Your task to perform on an android device: Go to Maps Image 0: 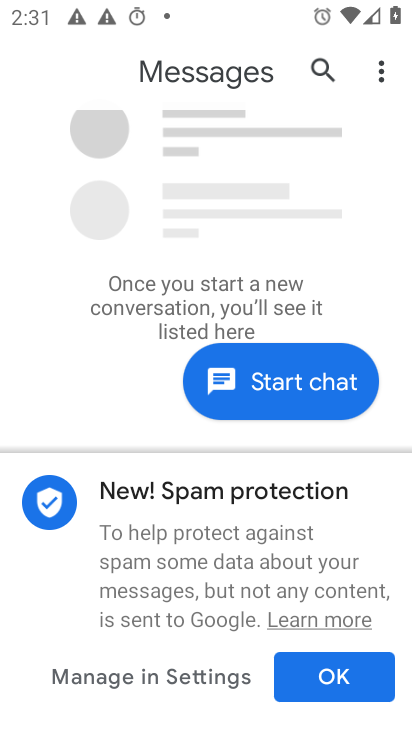
Step 0: press home button
Your task to perform on an android device: Go to Maps Image 1: 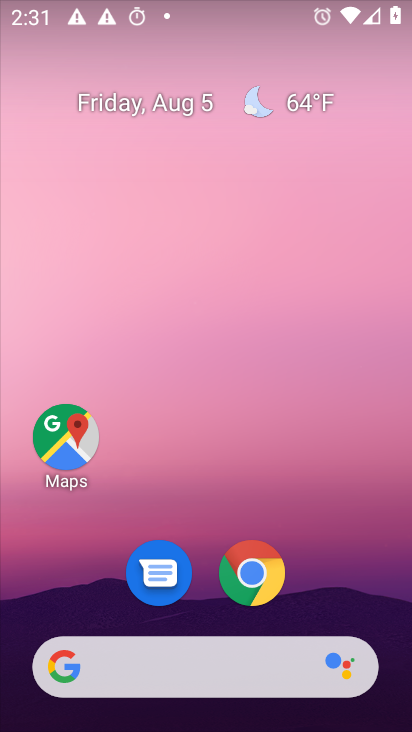
Step 1: drag from (326, 602) to (347, 186)
Your task to perform on an android device: Go to Maps Image 2: 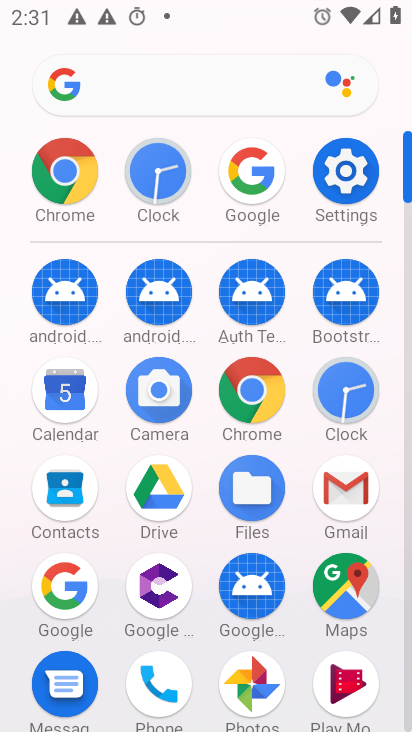
Step 2: click (342, 575)
Your task to perform on an android device: Go to Maps Image 3: 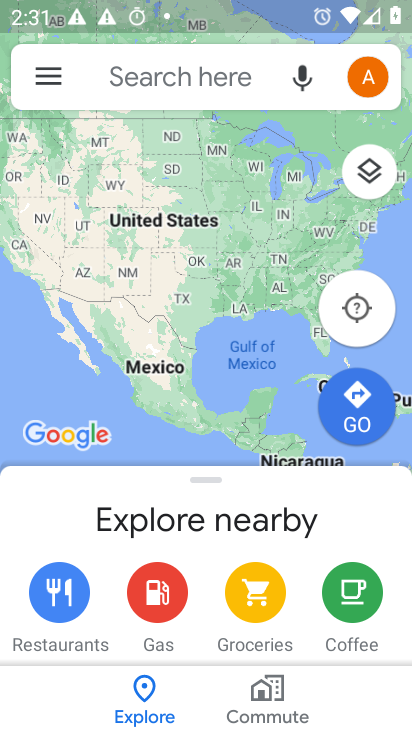
Step 3: task complete